Your task to perform on an android device: Go to calendar. Show me events next week Image 0: 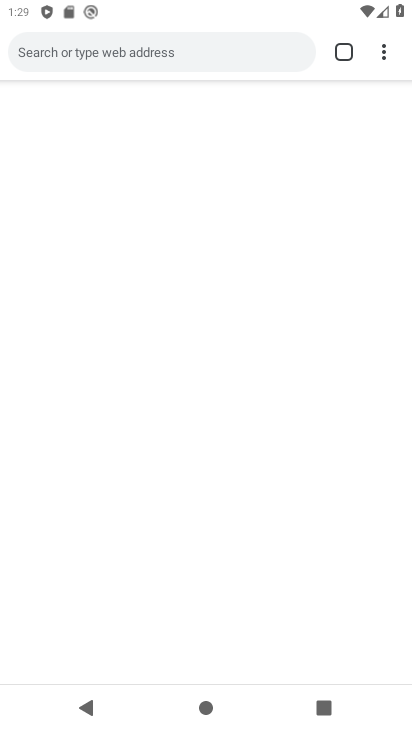
Step 0: drag from (276, 559) to (314, 10)
Your task to perform on an android device: Go to calendar. Show me events next week Image 1: 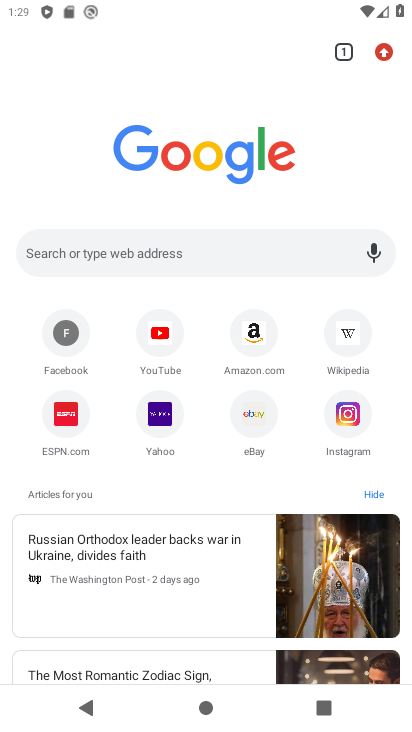
Step 1: press home button
Your task to perform on an android device: Go to calendar. Show me events next week Image 2: 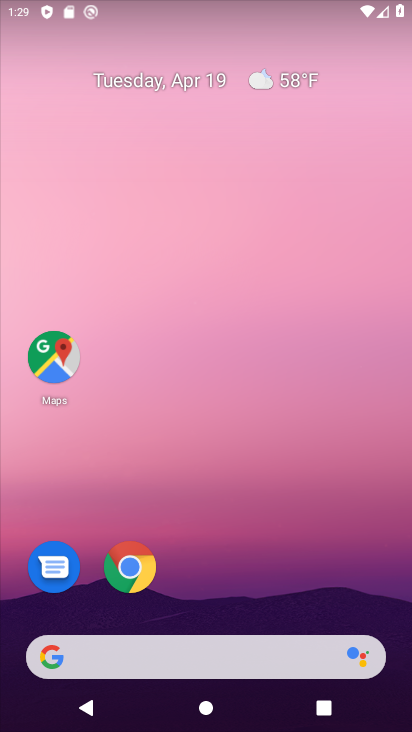
Step 2: drag from (226, 550) to (229, 130)
Your task to perform on an android device: Go to calendar. Show me events next week Image 3: 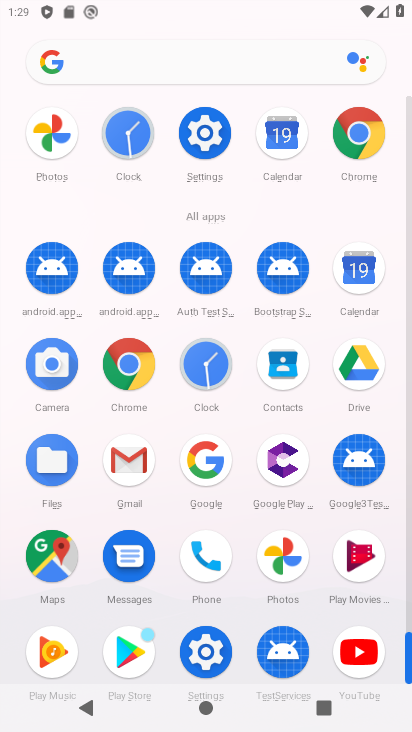
Step 3: click (285, 131)
Your task to perform on an android device: Go to calendar. Show me events next week Image 4: 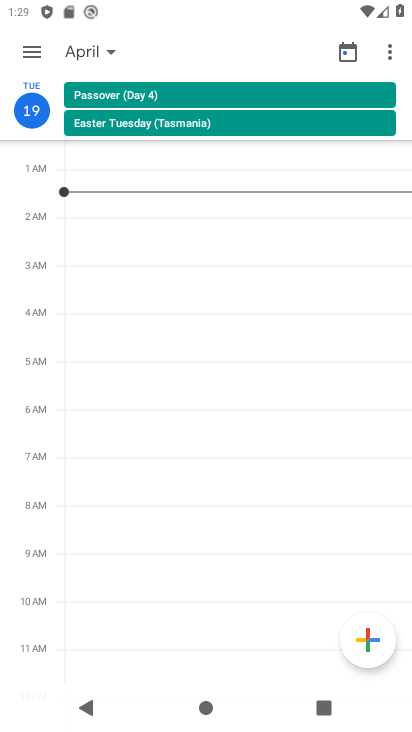
Step 4: click (86, 53)
Your task to perform on an android device: Go to calendar. Show me events next week Image 5: 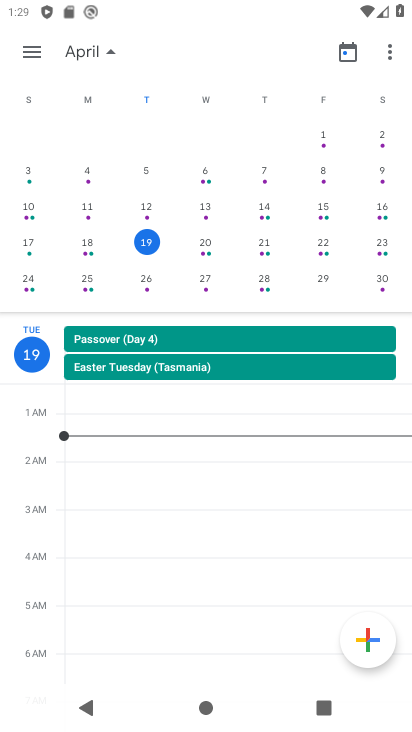
Step 5: click (31, 285)
Your task to perform on an android device: Go to calendar. Show me events next week Image 6: 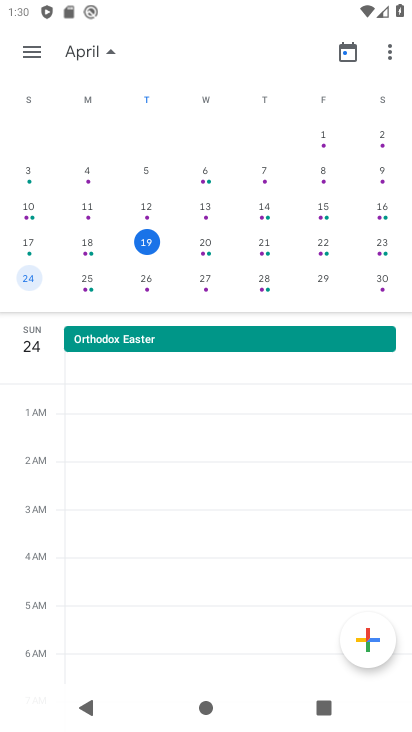
Step 6: click (86, 280)
Your task to perform on an android device: Go to calendar. Show me events next week Image 7: 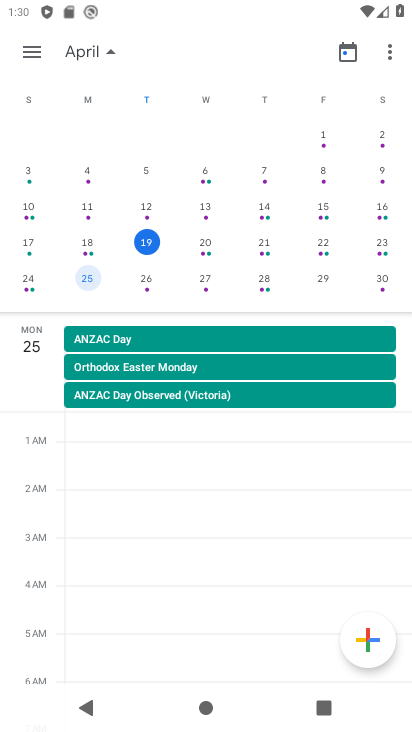
Step 7: click (147, 285)
Your task to perform on an android device: Go to calendar. Show me events next week Image 8: 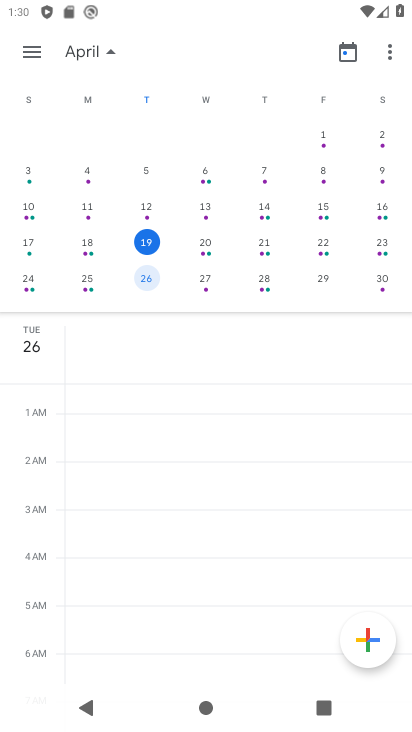
Step 8: click (200, 293)
Your task to perform on an android device: Go to calendar. Show me events next week Image 9: 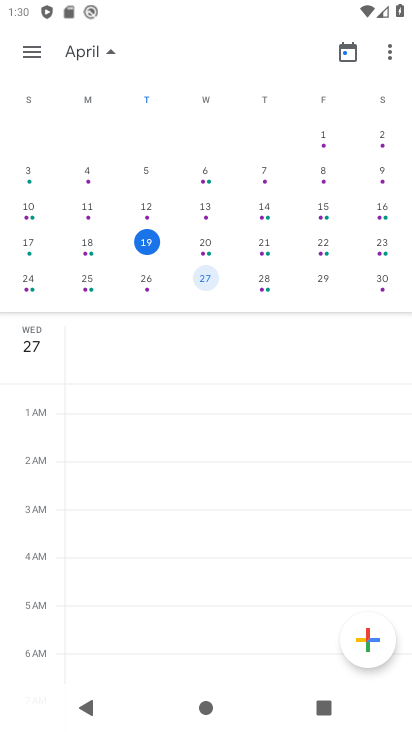
Step 9: click (259, 291)
Your task to perform on an android device: Go to calendar. Show me events next week Image 10: 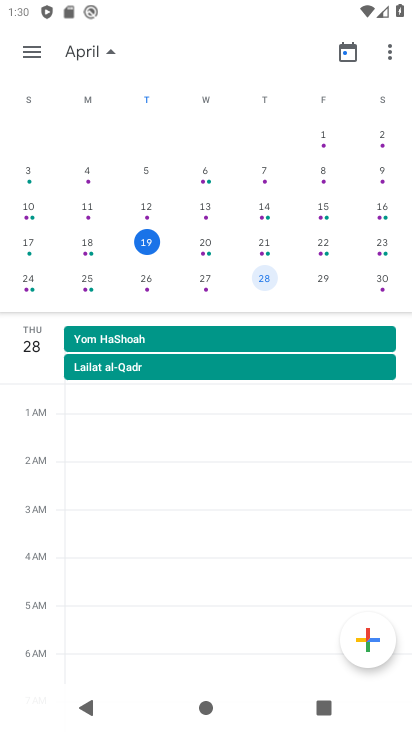
Step 10: click (320, 292)
Your task to perform on an android device: Go to calendar. Show me events next week Image 11: 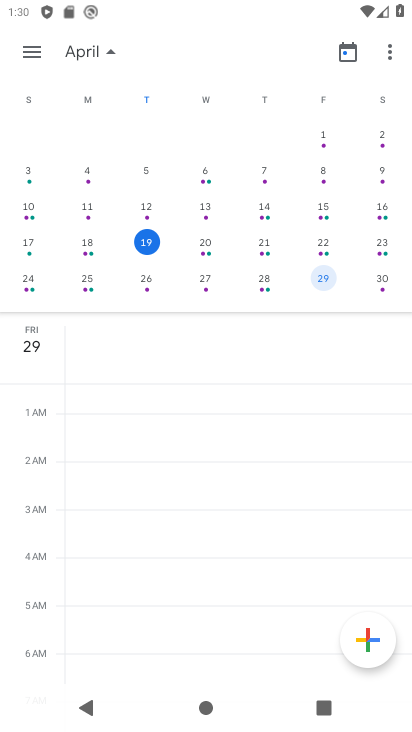
Step 11: click (387, 298)
Your task to perform on an android device: Go to calendar. Show me events next week Image 12: 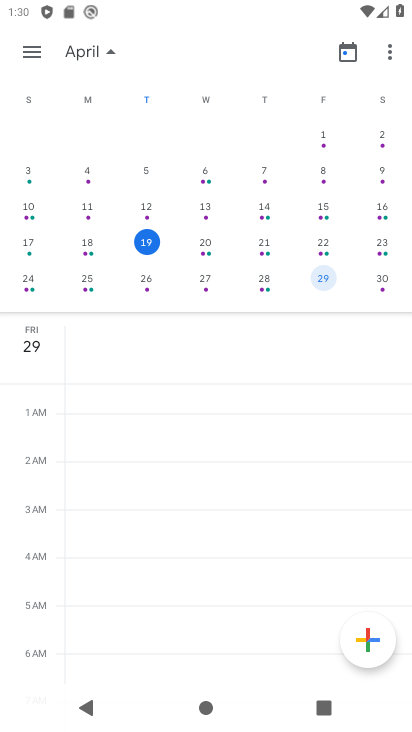
Step 12: click (383, 283)
Your task to perform on an android device: Go to calendar. Show me events next week Image 13: 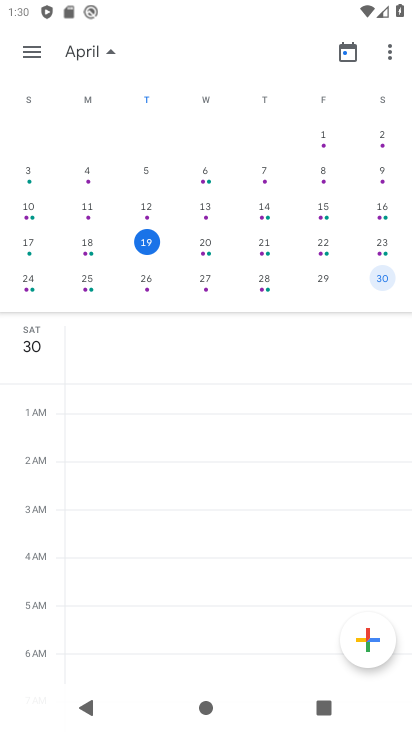
Step 13: task complete